Your task to perform on an android device: Open wifi settings Image 0: 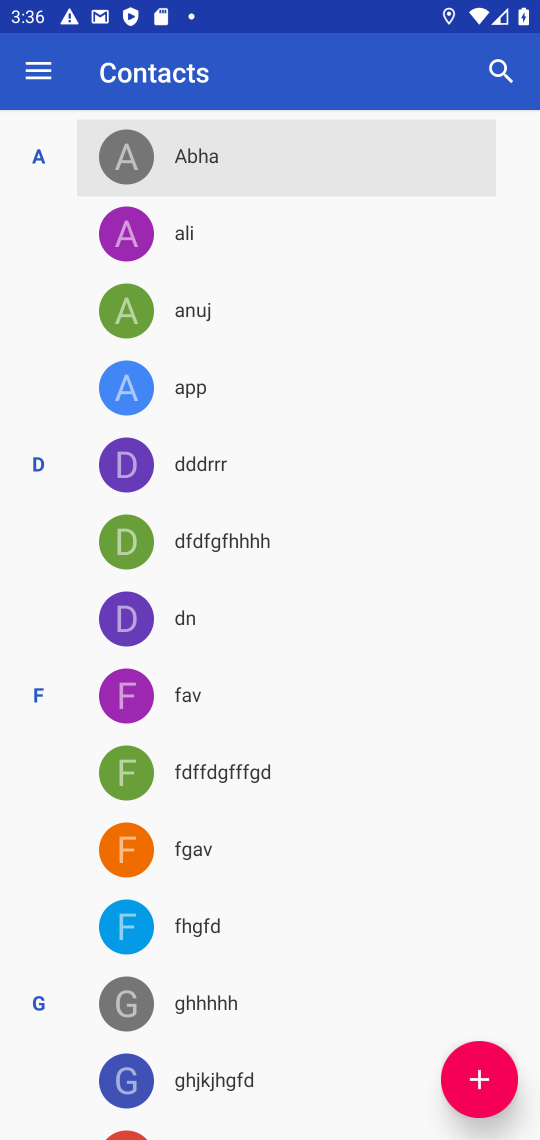
Step 0: press home button
Your task to perform on an android device: Open wifi settings Image 1: 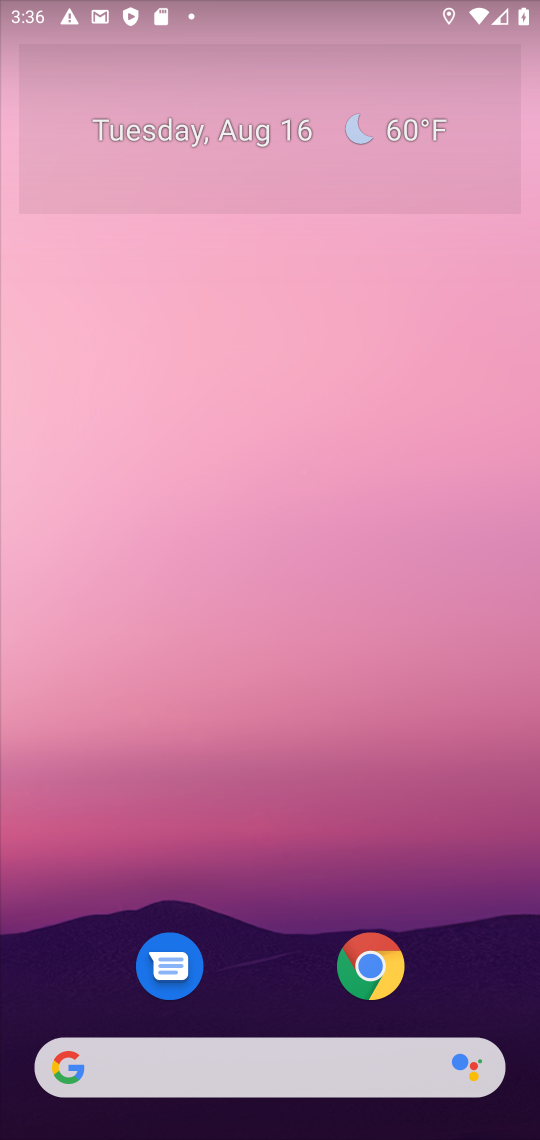
Step 1: drag from (32, 1128) to (229, 483)
Your task to perform on an android device: Open wifi settings Image 2: 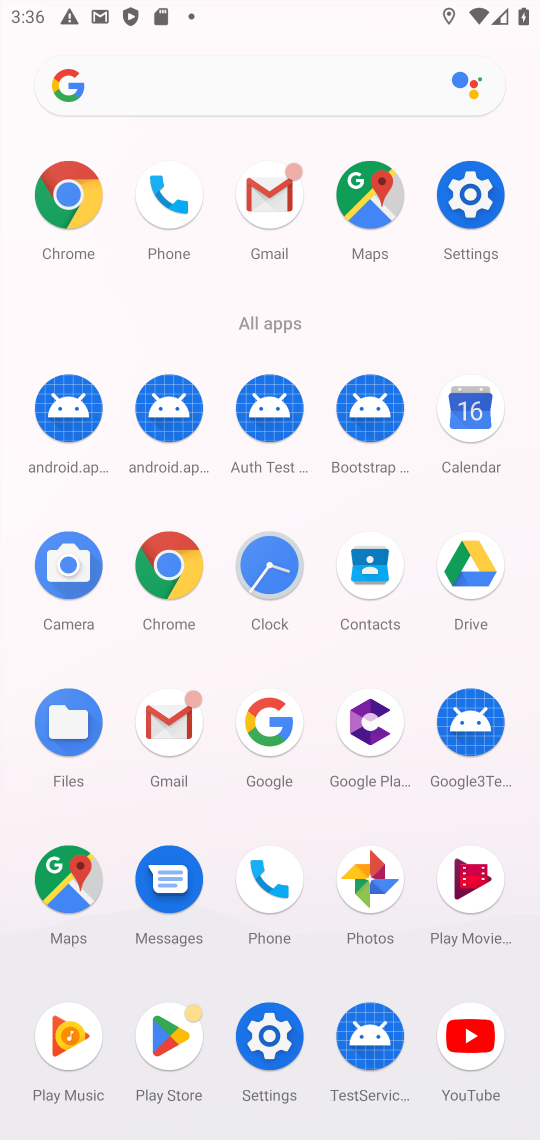
Step 2: click (241, 1024)
Your task to perform on an android device: Open wifi settings Image 3: 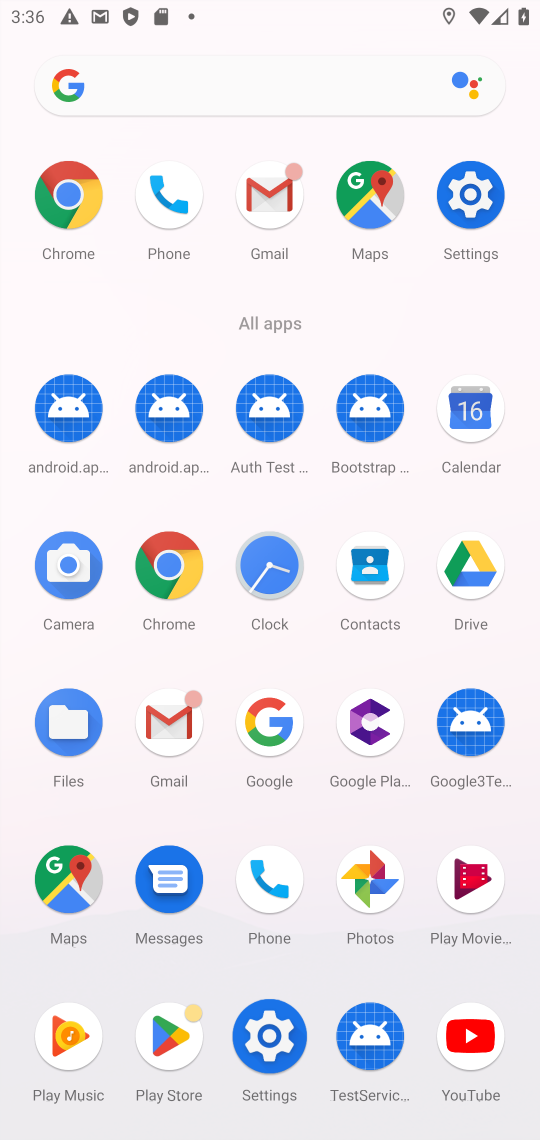
Step 3: click (263, 1034)
Your task to perform on an android device: Open wifi settings Image 4: 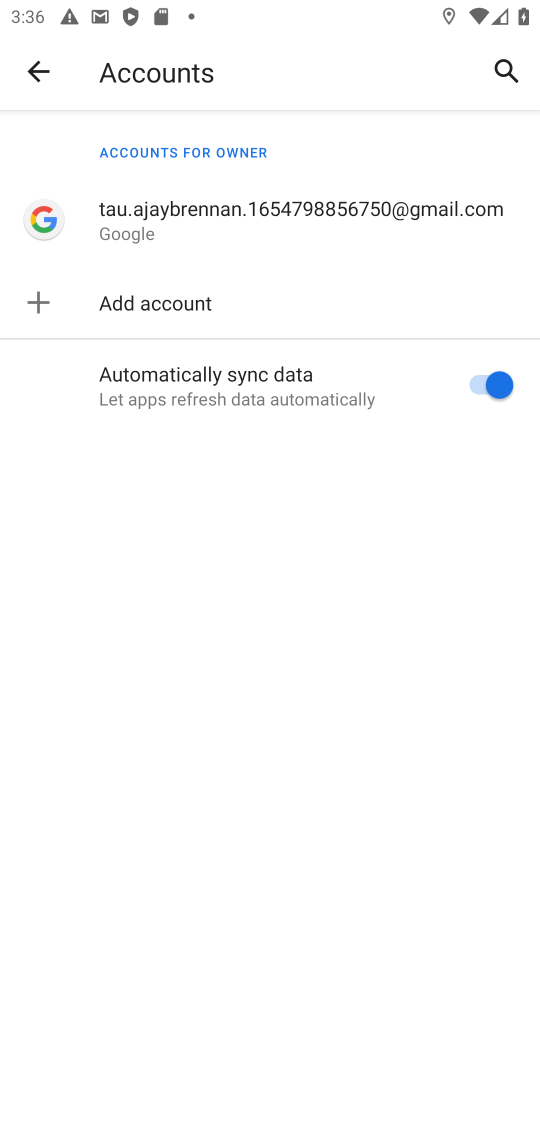
Step 4: press back button
Your task to perform on an android device: Open wifi settings Image 5: 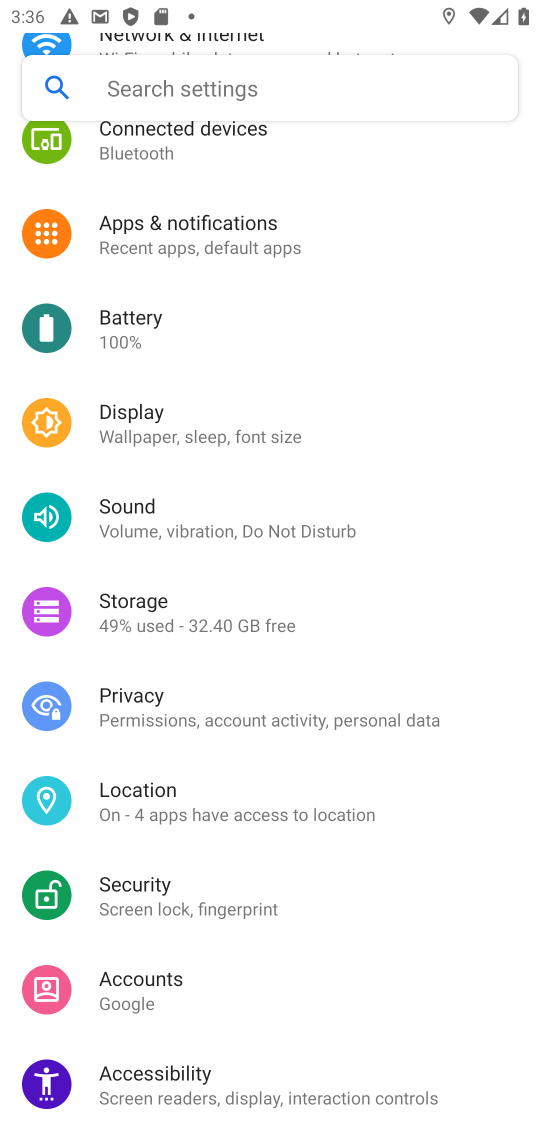
Step 5: drag from (336, 161) to (395, 820)
Your task to perform on an android device: Open wifi settings Image 6: 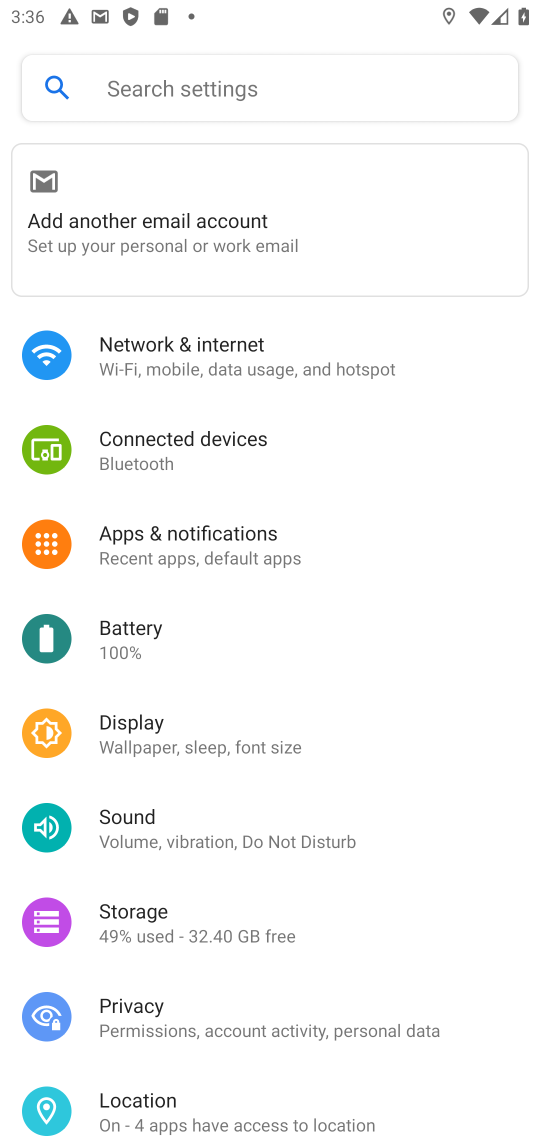
Step 6: click (202, 365)
Your task to perform on an android device: Open wifi settings Image 7: 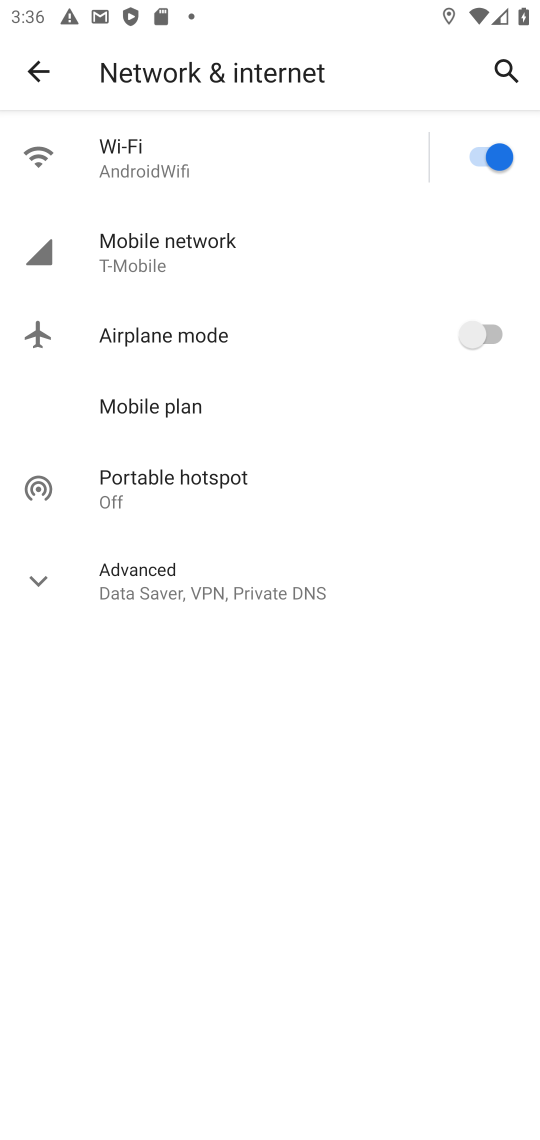
Step 7: task complete